Your task to perform on an android device: Go to accessibility settings Image 0: 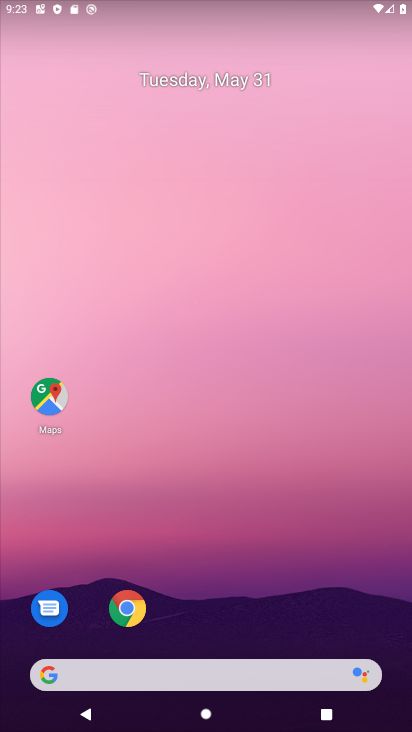
Step 0: drag from (208, 636) to (338, 26)
Your task to perform on an android device: Go to accessibility settings Image 1: 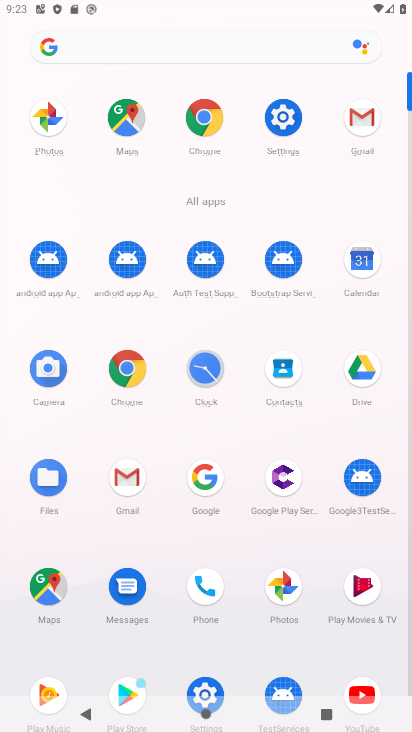
Step 1: click (296, 125)
Your task to perform on an android device: Go to accessibility settings Image 2: 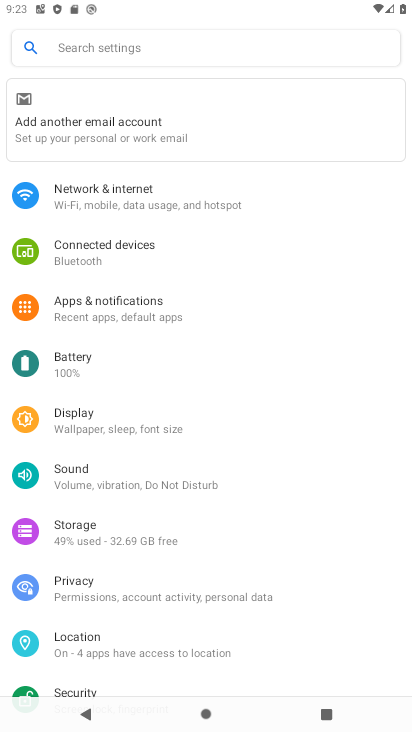
Step 2: drag from (143, 638) to (179, 207)
Your task to perform on an android device: Go to accessibility settings Image 3: 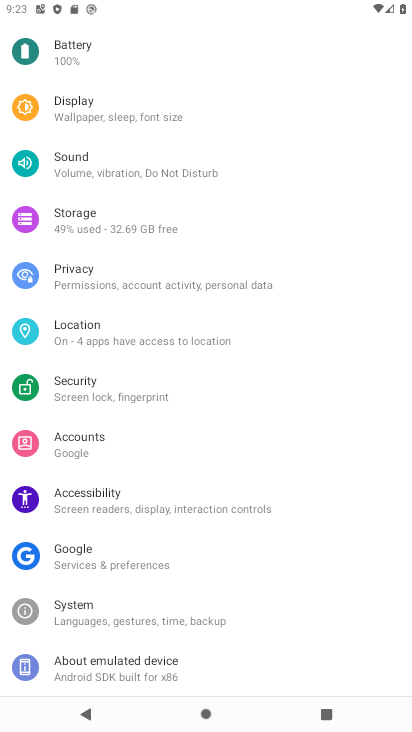
Step 3: click (142, 491)
Your task to perform on an android device: Go to accessibility settings Image 4: 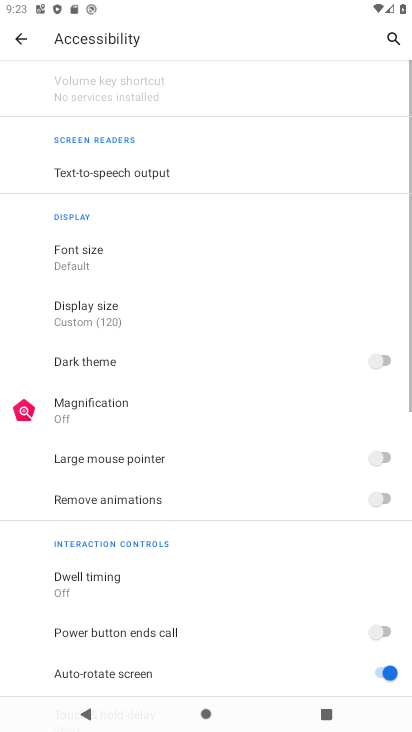
Step 4: task complete